Your task to perform on an android device: Go to sound settings Image 0: 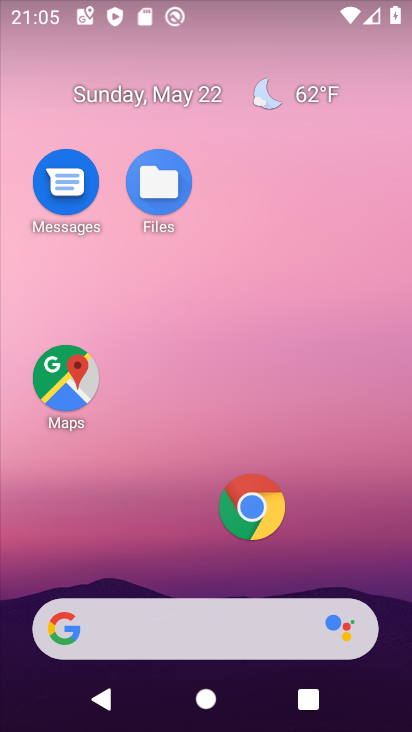
Step 0: task complete